Your task to perform on an android device: change the clock display to analog Image 0: 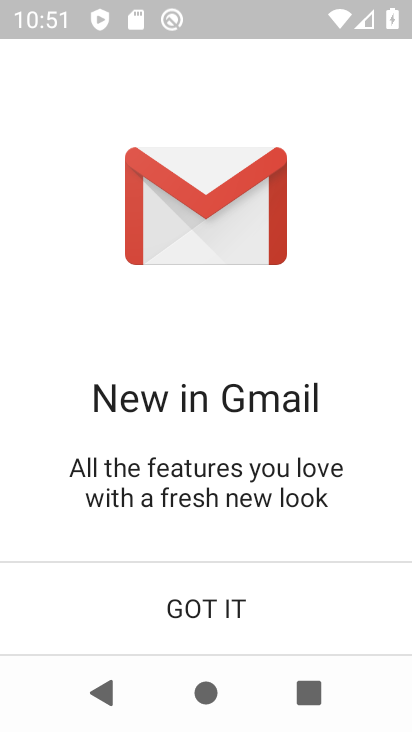
Step 0: click (257, 607)
Your task to perform on an android device: change the clock display to analog Image 1: 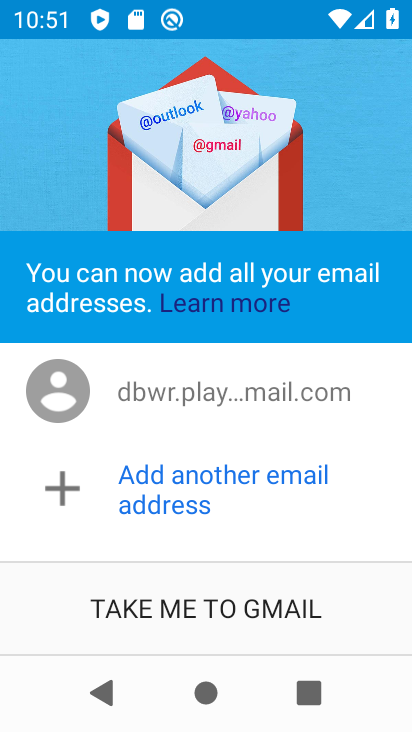
Step 1: click (239, 608)
Your task to perform on an android device: change the clock display to analog Image 2: 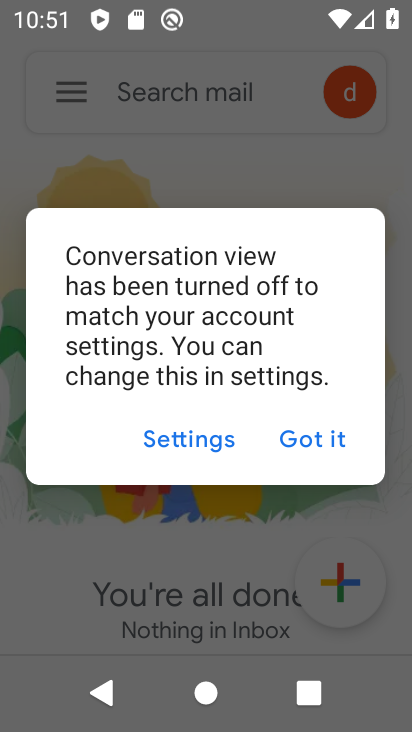
Step 2: press home button
Your task to perform on an android device: change the clock display to analog Image 3: 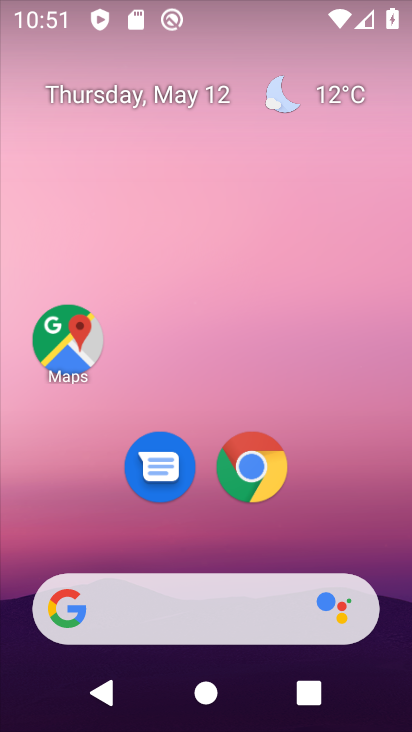
Step 3: drag from (322, 530) to (272, 80)
Your task to perform on an android device: change the clock display to analog Image 4: 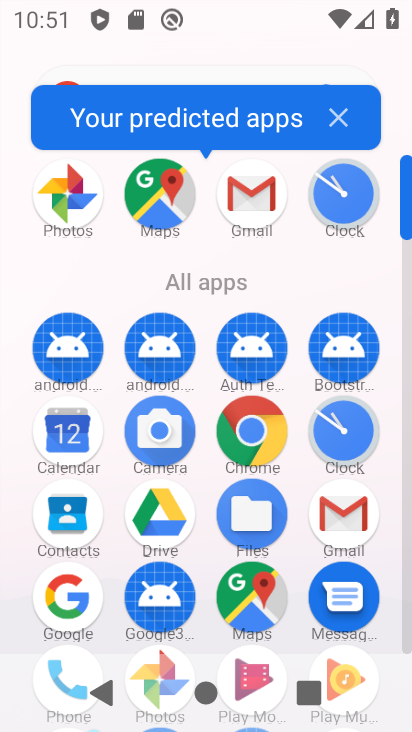
Step 4: click (326, 207)
Your task to perform on an android device: change the clock display to analog Image 5: 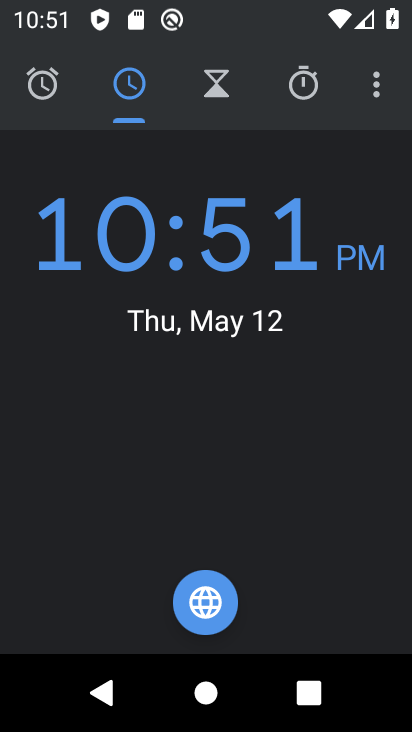
Step 5: click (372, 102)
Your task to perform on an android device: change the clock display to analog Image 6: 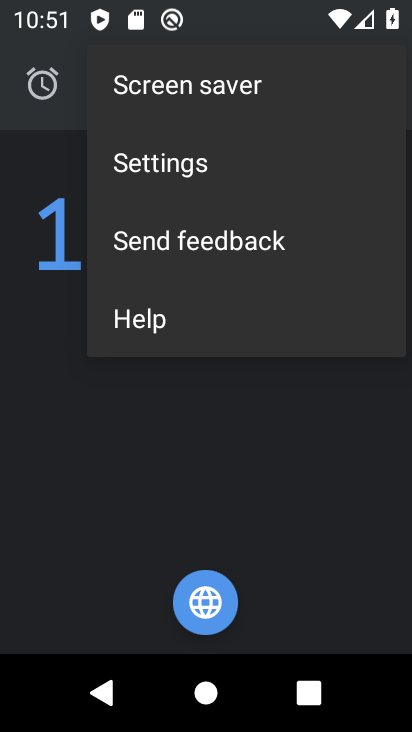
Step 6: click (237, 168)
Your task to perform on an android device: change the clock display to analog Image 7: 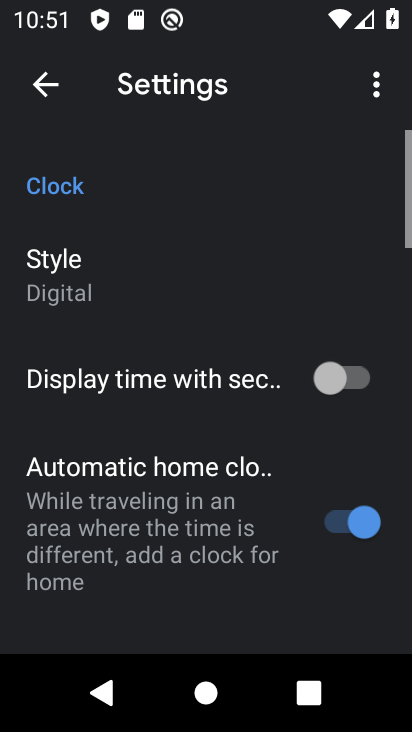
Step 7: click (79, 266)
Your task to perform on an android device: change the clock display to analog Image 8: 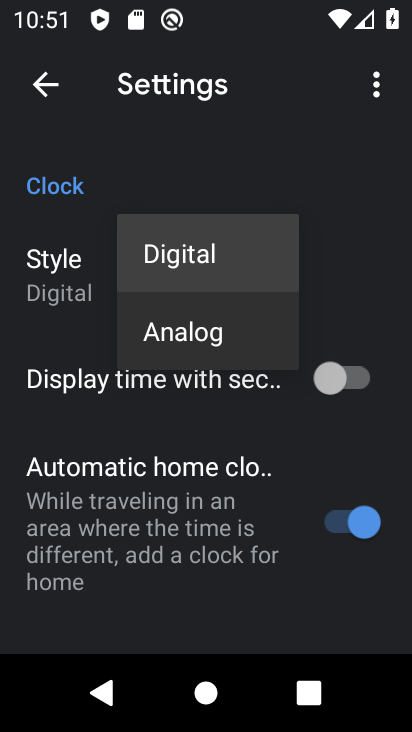
Step 8: click (218, 331)
Your task to perform on an android device: change the clock display to analog Image 9: 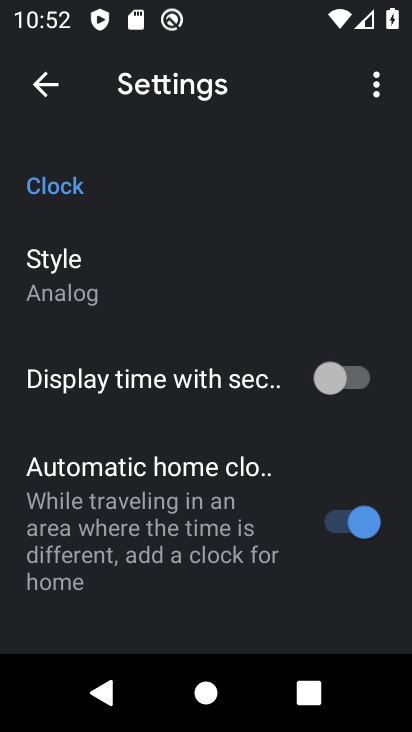
Step 9: task complete